Your task to perform on an android device: change your default location settings in chrome Image 0: 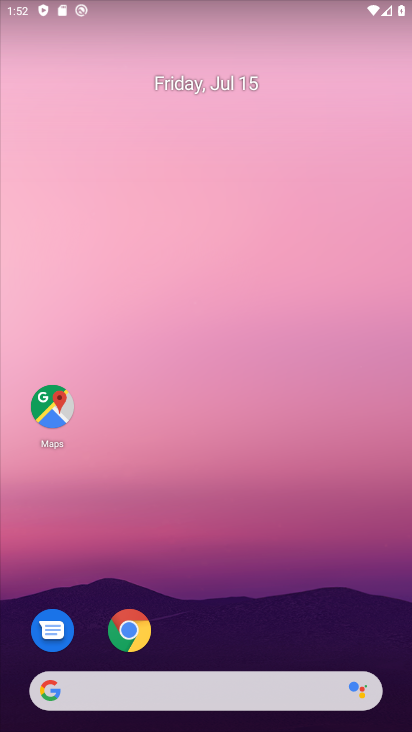
Step 0: drag from (333, 620) to (335, 161)
Your task to perform on an android device: change your default location settings in chrome Image 1: 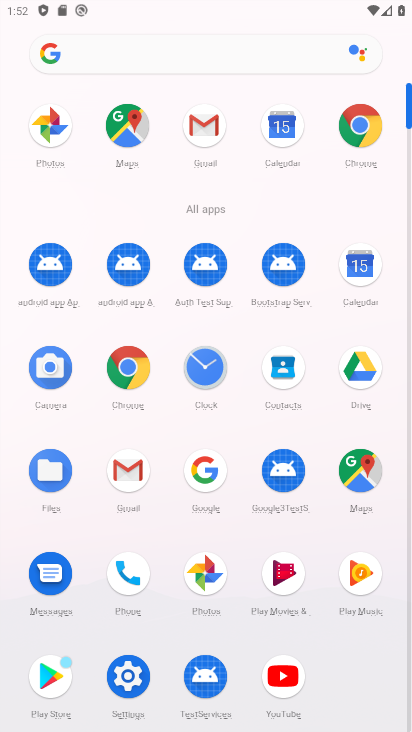
Step 1: click (132, 362)
Your task to perform on an android device: change your default location settings in chrome Image 2: 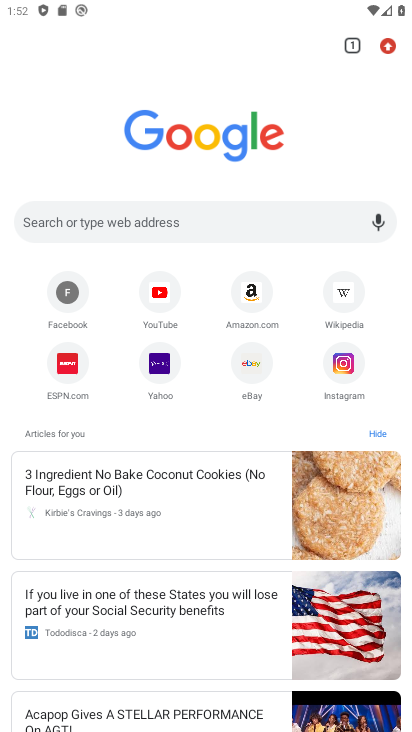
Step 2: click (389, 45)
Your task to perform on an android device: change your default location settings in chrome Image 3: 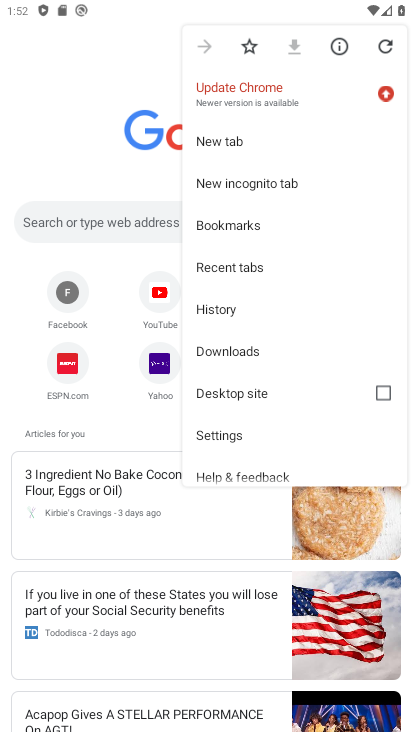
Step 3: drag from (319, 404) to (321, 305)
Your task to perform on an android device: change your default location settings in chrome Image 4: 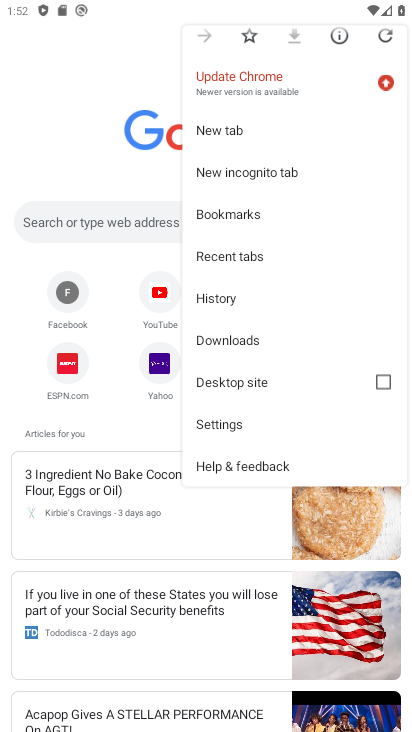
Step 4: click (267, 421)
Your task to perform on an android device: change your default location settings in chrome Image 5: 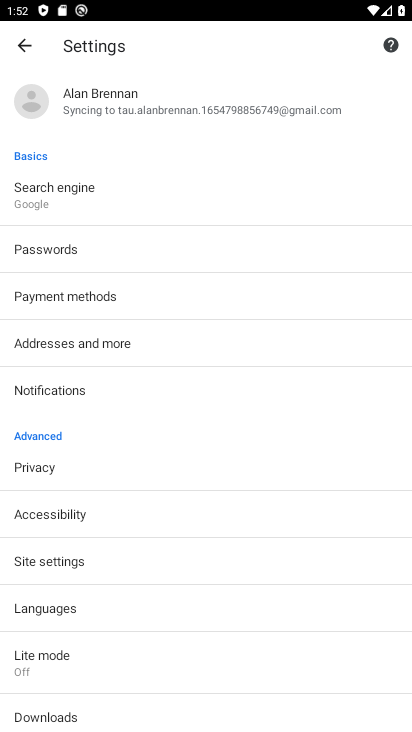
Step 5: drag from (281, 543) to (279, 341)
Your task to perform on an android device: change your default location settings in chrome Image 6: 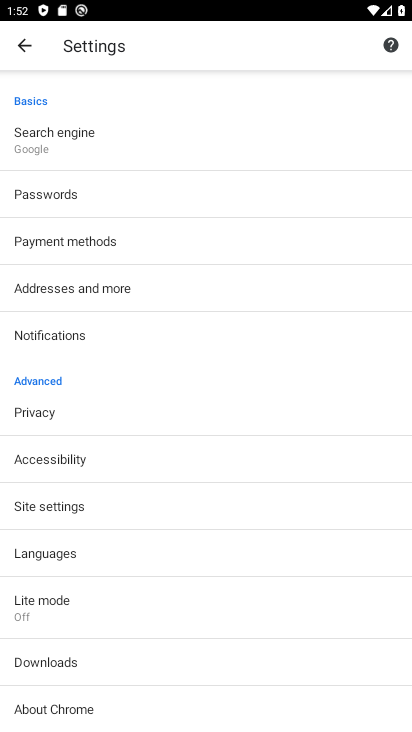
Step 6: drag from (254, 500) to (258, 344)
Your task to perform on an android device: change your default location settings in chrome Image 7: 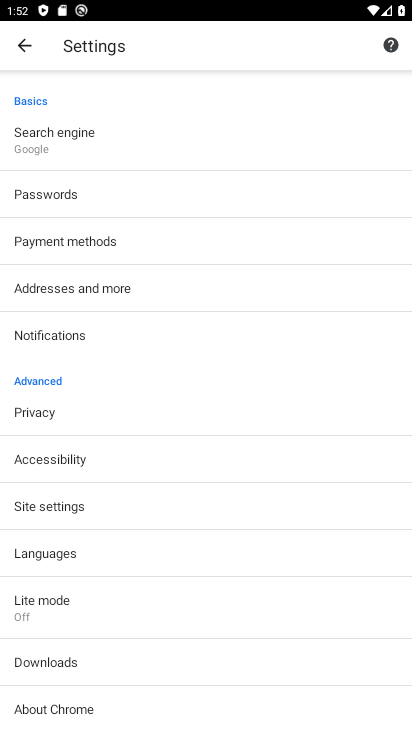
Step 7: drag from (266, 467) to (260, 400)
Your task to perform on an android device: change your default location settings in chrome Image 8: 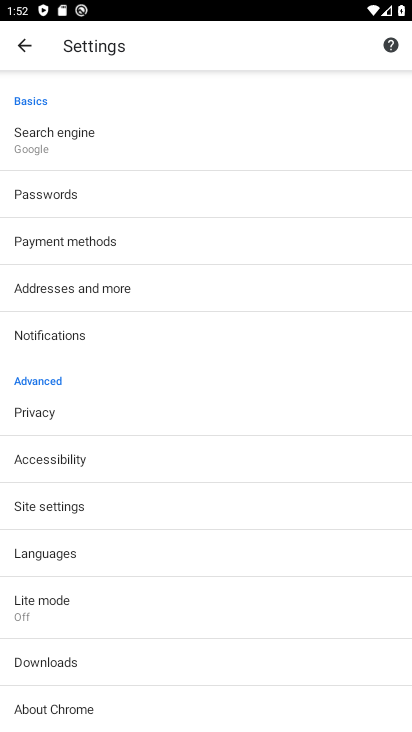
Step 8: click (218, 508)
Your task to perform on an android device: change your default location settings in chrome Image 9: 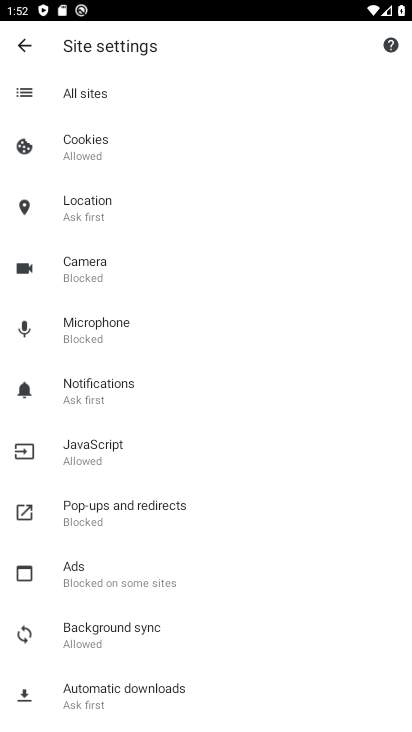
Step 9: drag from (332, 347) to (339, 412)
Your task to perform on an android device: change your default location settings in chrome Image 10: 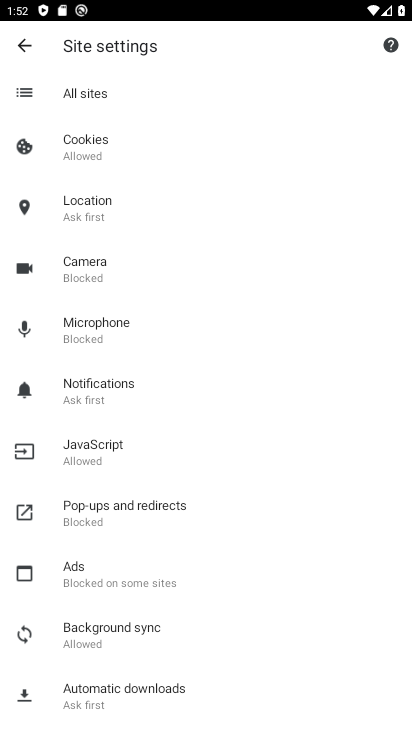
Step 10: drag from (314, 477) to (318, 414)
Your task to perform on an android device: change your default location settings in chrome Image 11: 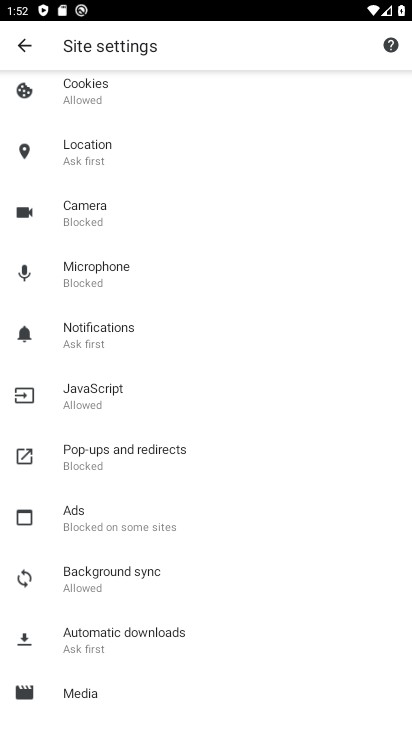
Step 11: click (127, 154)
Your task to perform on an android device: change your default location settings in chrome Image 12: 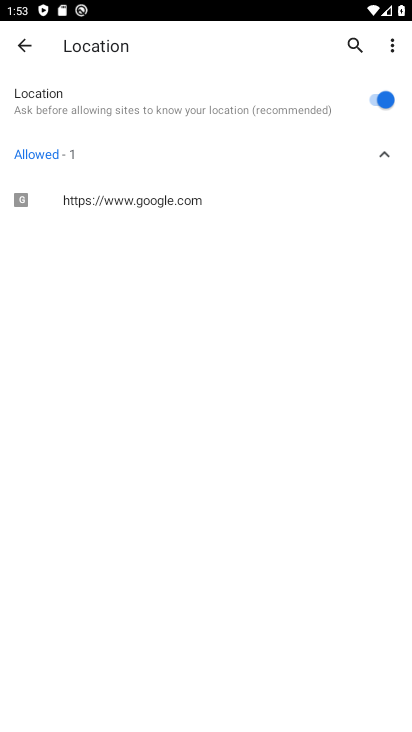
Step 12: click (375, 103)
Your task to perform on an android device: change your default location settings in chrome Image 13: 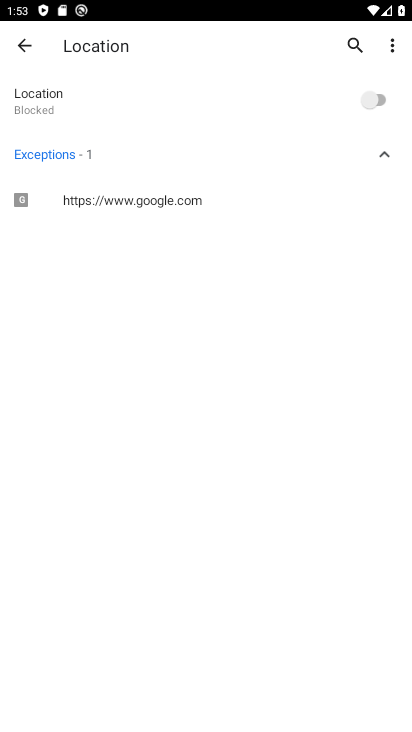
Step 13: task complete